Your task to perform on an android device: turn on data saver in the chrome app Image 0: 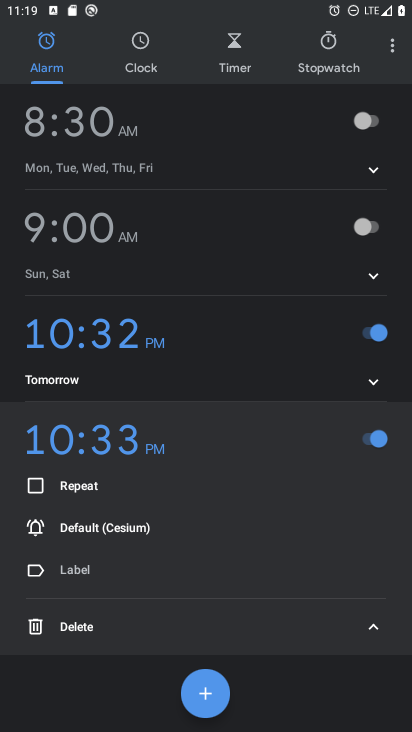
Step 0: press home button
Your task to perform on an android device: turn on data saver in the chrome app Image 1: 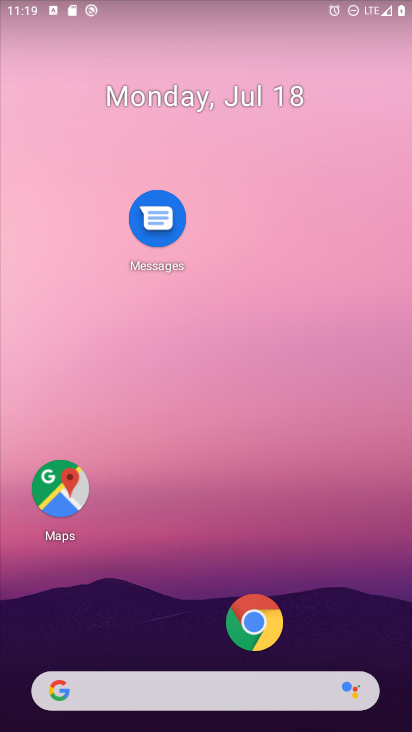
Step 1: drag from (176, 654) to (263, 91)
Your task to perform on an android device: turn on data saver in the chrome app Image 2: 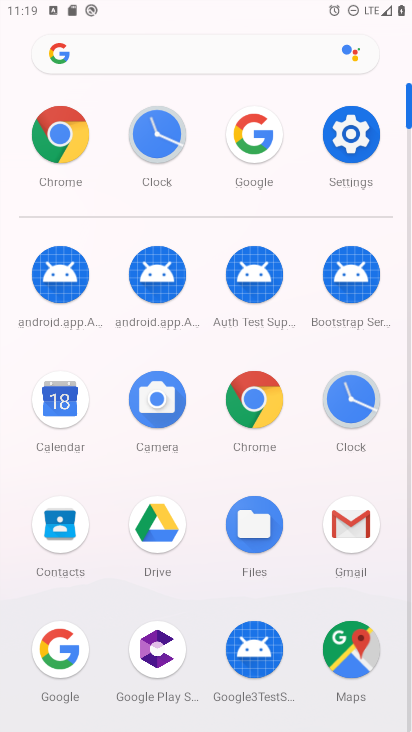
Step 2: click (272, 415)
Your task to perform on an android device: turn on data saver in the chrome app Image 3: 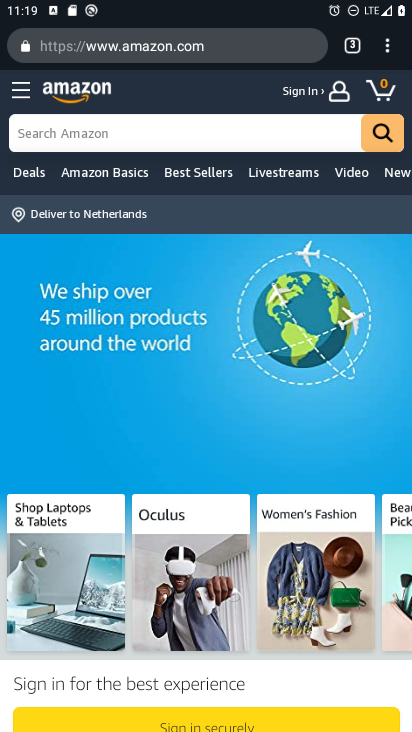
Step 3: click (389, 52)
Your task to perform on an android device: turn on data saver in the chrome app Image 4: 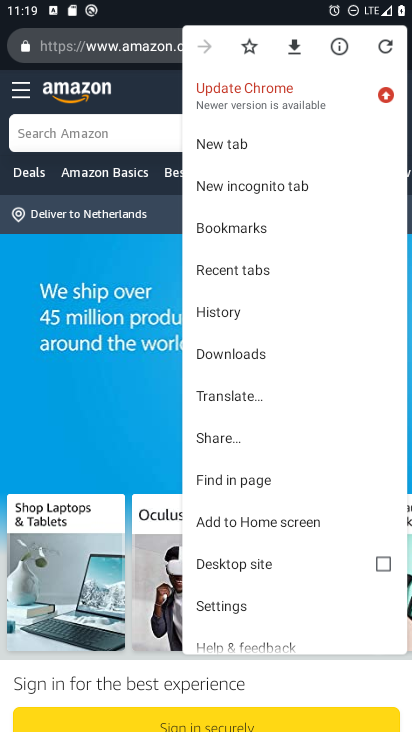
Step 4: click (229, 601)
Your task to perform on an android device: turn on data saver in the chrome app Image 5: 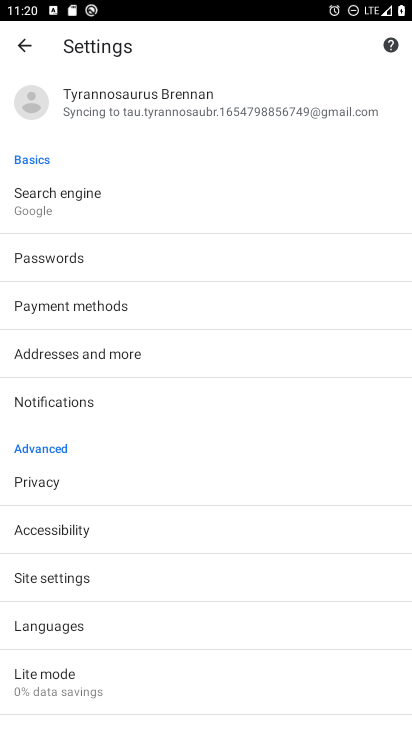
Step 5: click (70, 687)
Your task to perform on an android device: turn on data saver in the chrome app Image 6: 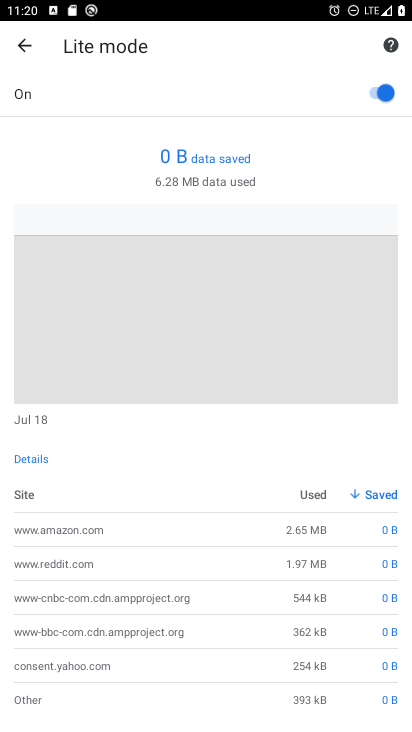
Step 6: task complete